Your task to perform on an android device: Open the stopwatch Image 0: 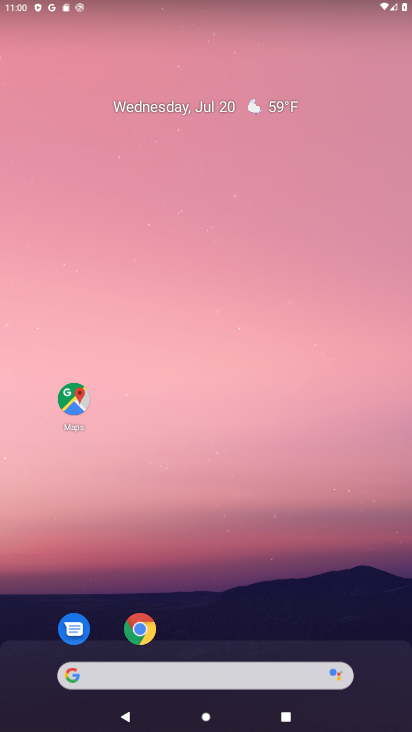
Step 0: drag from (163, 667) to (182, 187)
Your task to perform on an android device: Open the stopwatch Image 1: 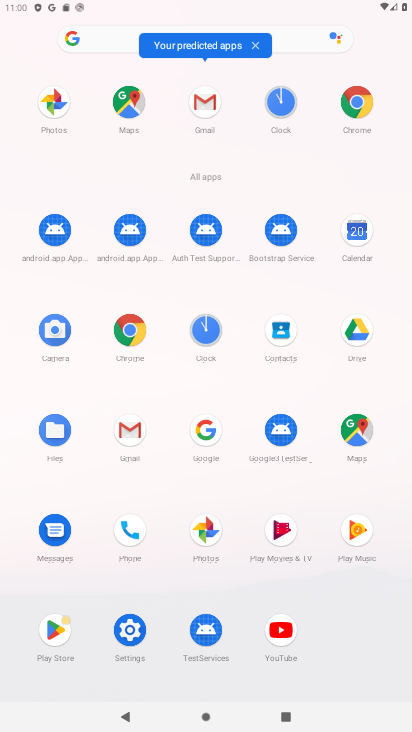
Step 1: click (203, 323)
Your task to perform on an android device: Open the stopwatch Image 2: 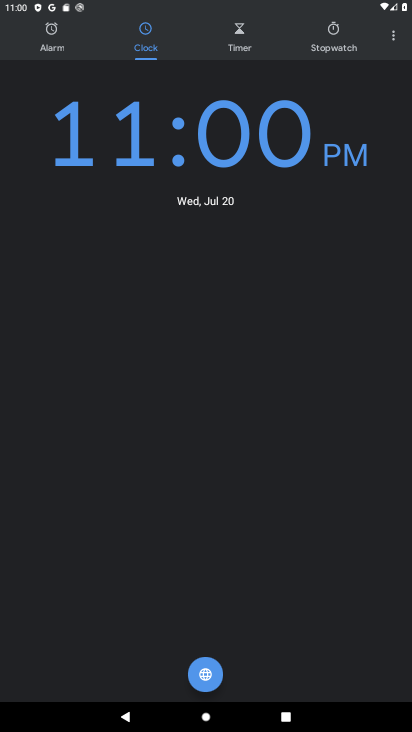
Step 2: click (319, 42)
Your task to perform on an android device: Open the stopwatch Image 3: 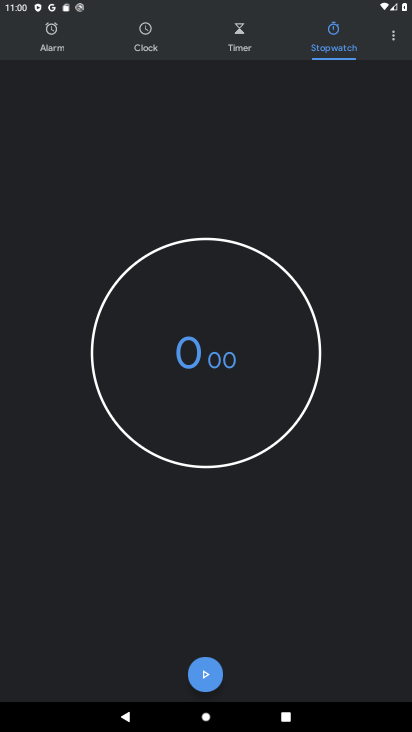
Step 3: task complete